Your task to perform on an android device: turn on airplane mode Image 0: 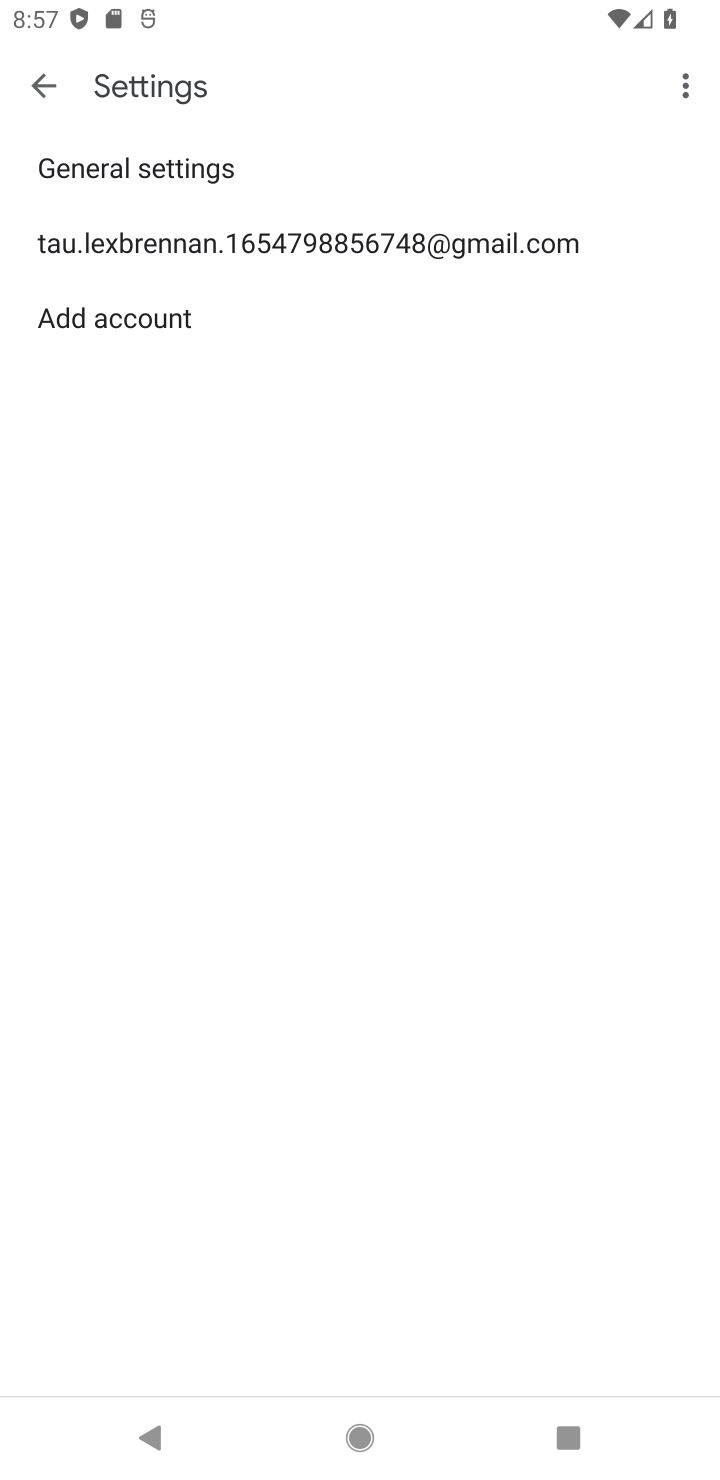
Step 0: task complete